Your task to perform on an android device: turn off improve location accuracy Image 0: 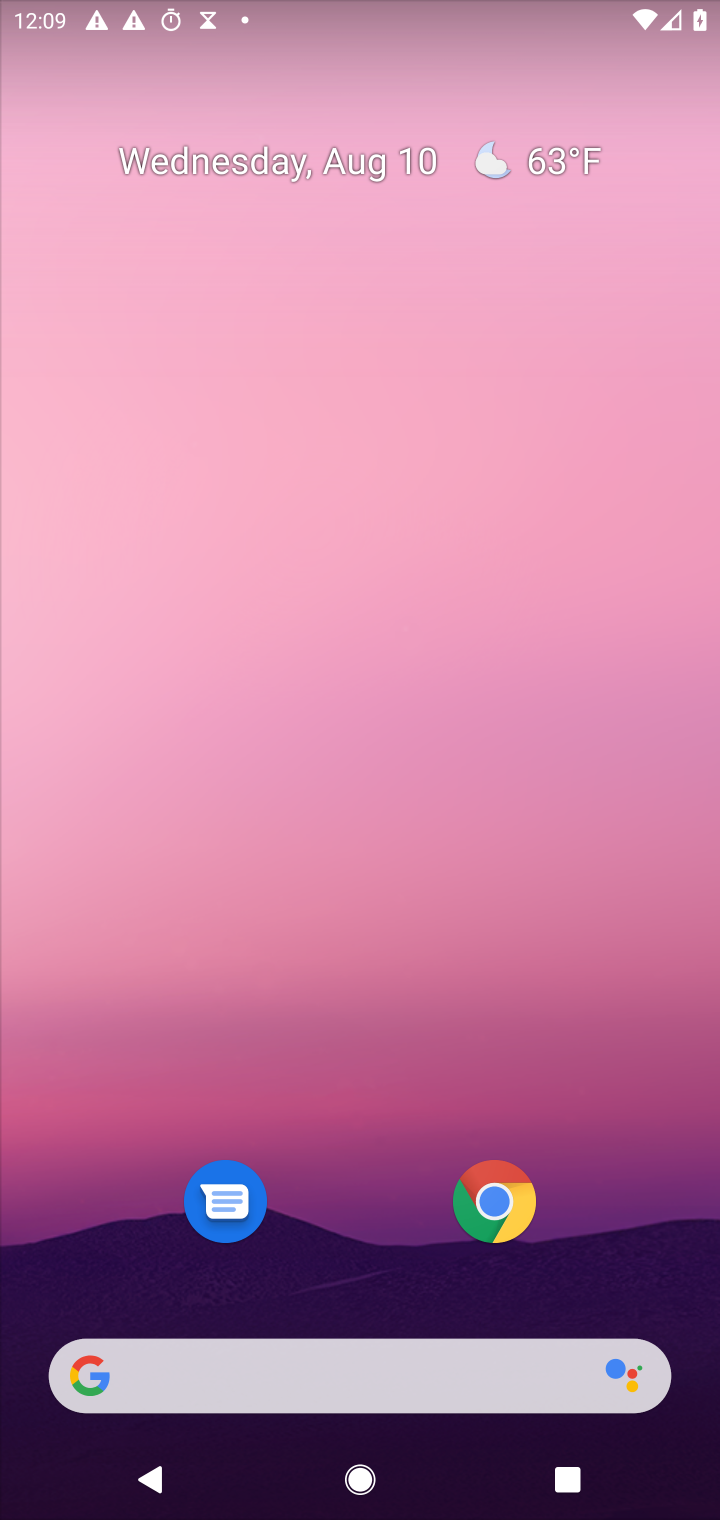
Step 0: press home button
Your task to perform on an android device: turn off improve location accuracy Image 1: 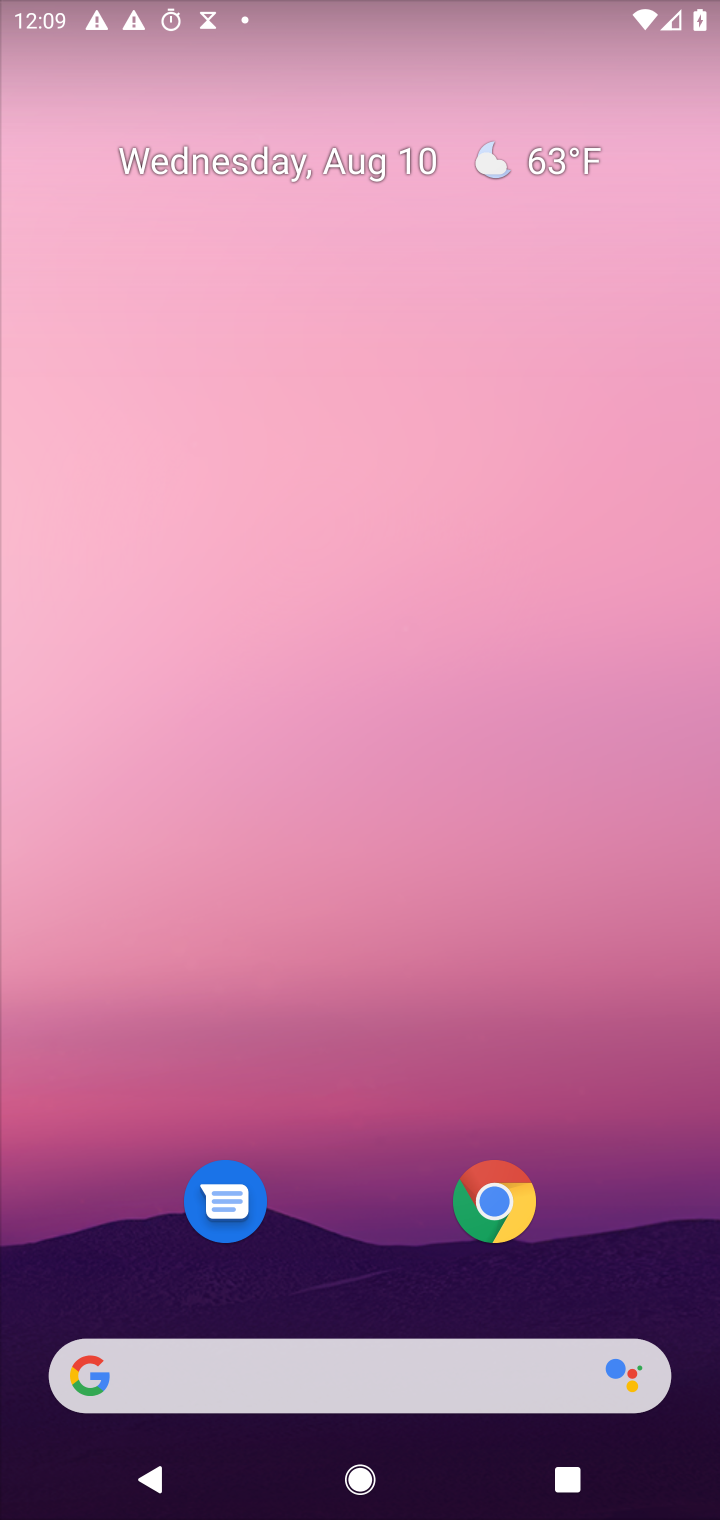
Step 1: click (382, 138)
Your task to perform on an android device: turn off improve location accuracy Image 2: 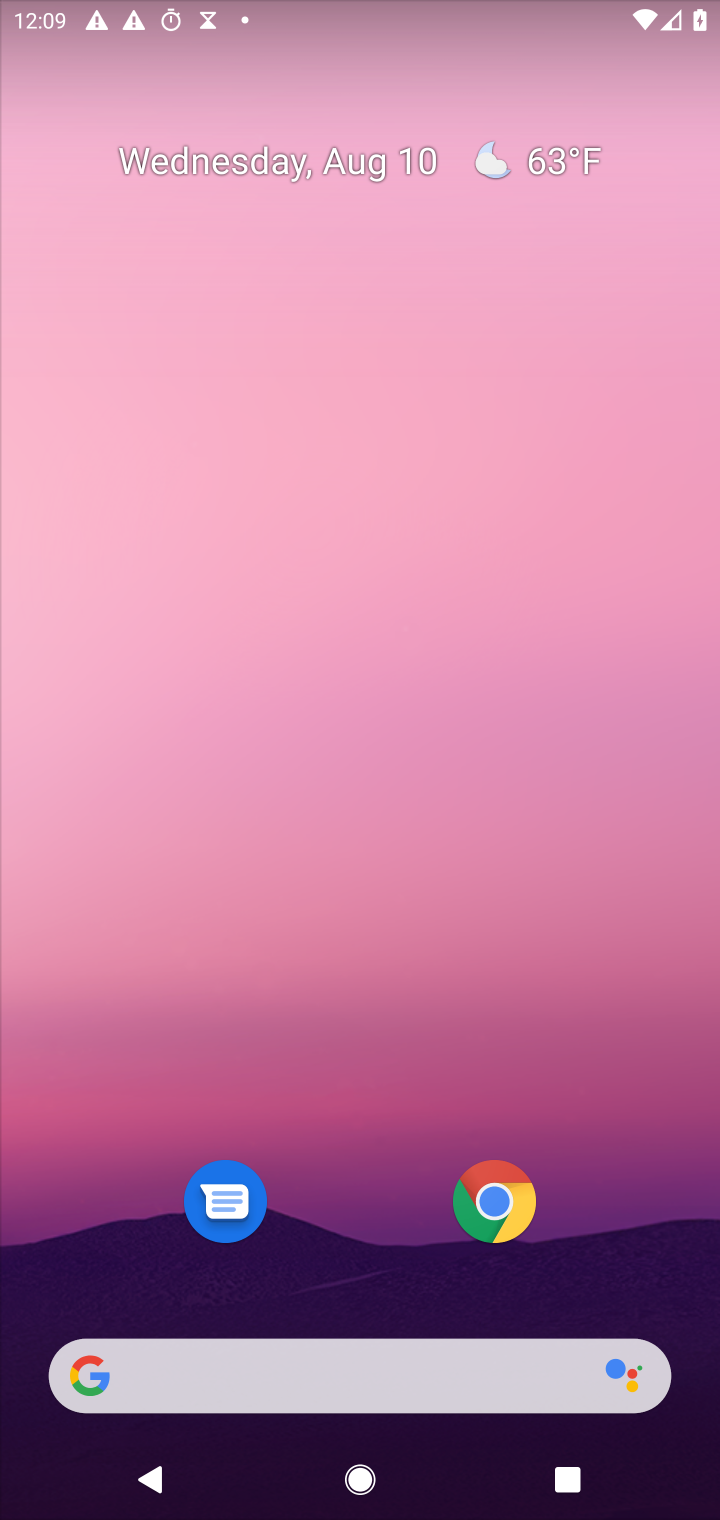
Step 2: drag from (253, 789) to (665, 12)
Your task to perform on an android device: turn off improve location accuracy Image 3: 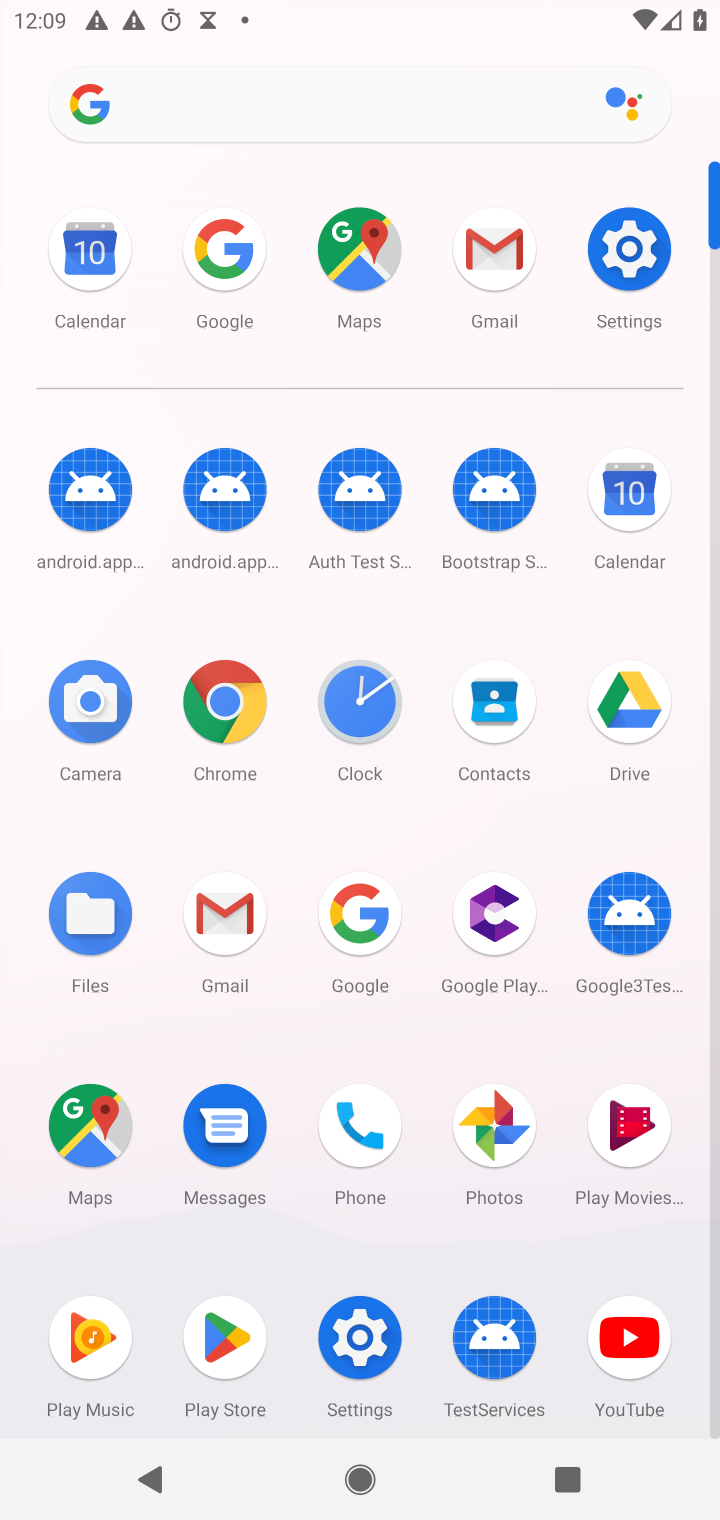
Step 3: click (631, 264)
Your task to perform on an android device: turn off improve location accuracy Image 4: 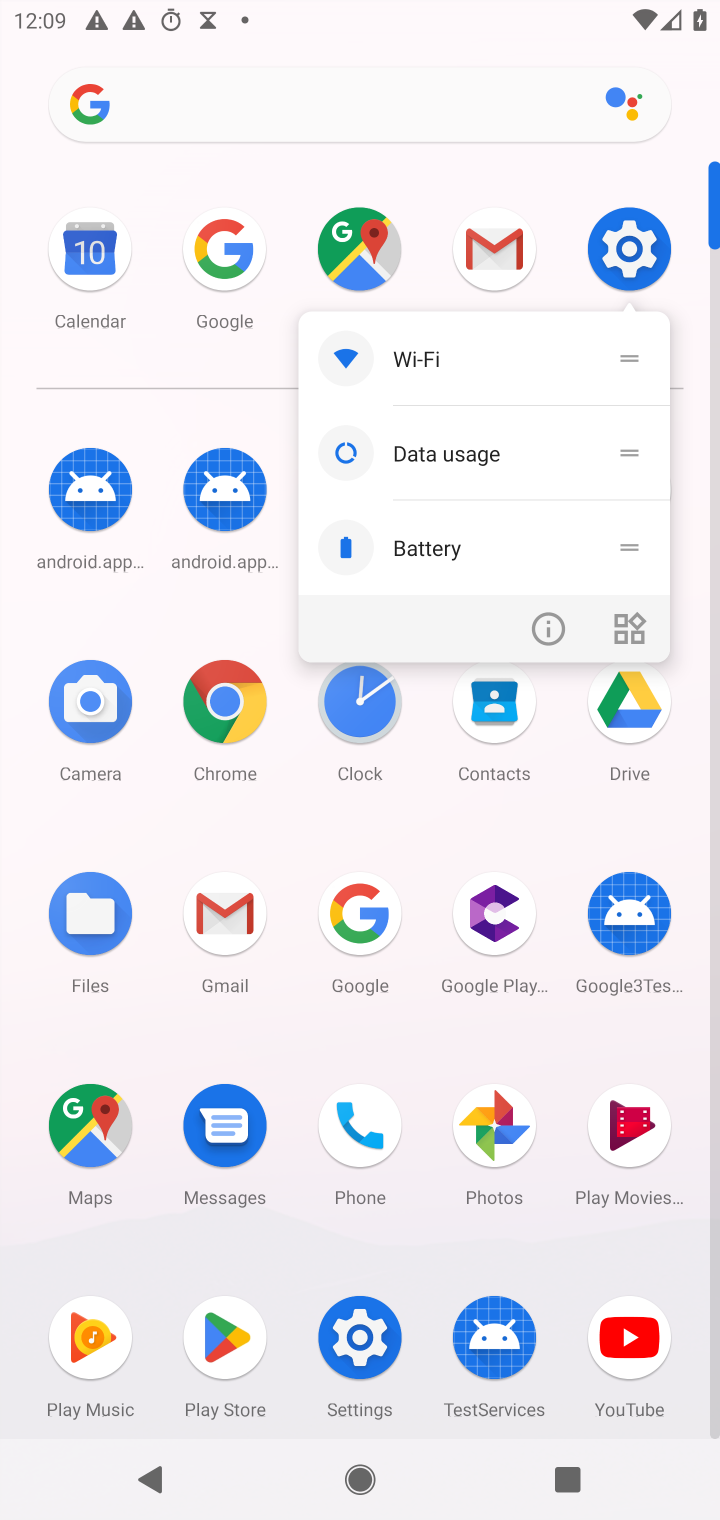
Step 4: click (631, 264)
Your task to perform on an android device: turn off improve location accuracy Image 5: 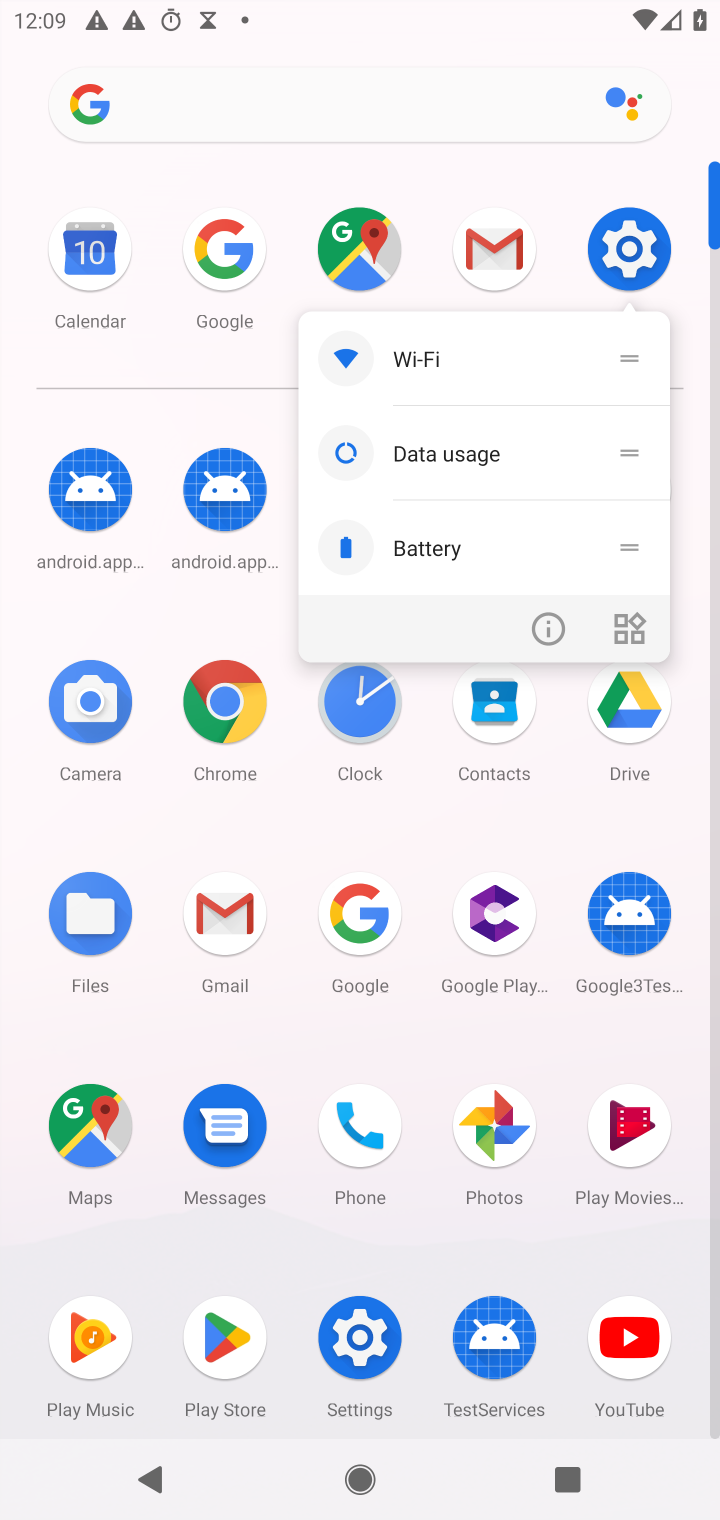
Step 5: click (636, 242)
Your task to perform on an android device: turn off improve location accuracy Image 6: 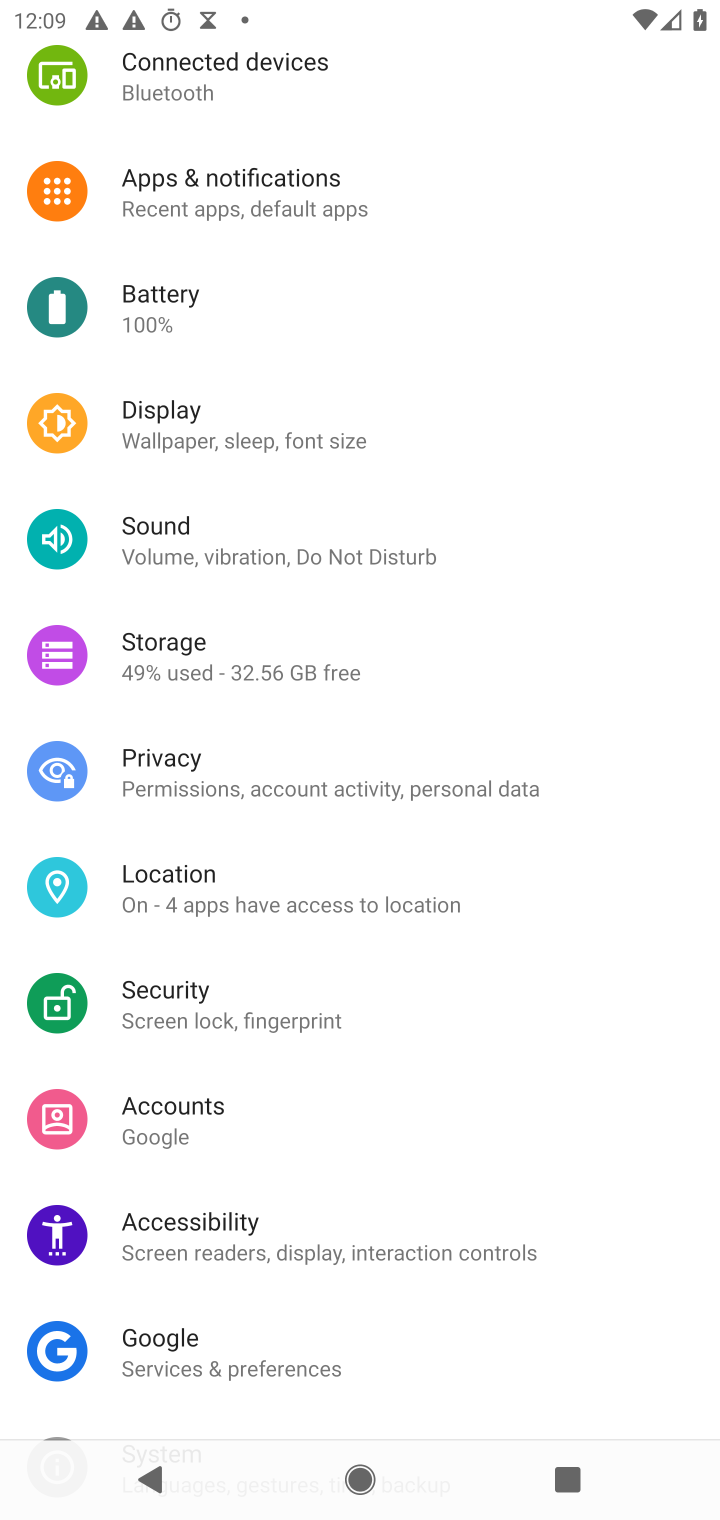
Step 6: click (366, 911)
Your task to perform on an android device: turn off improve location accuracy Image 7: 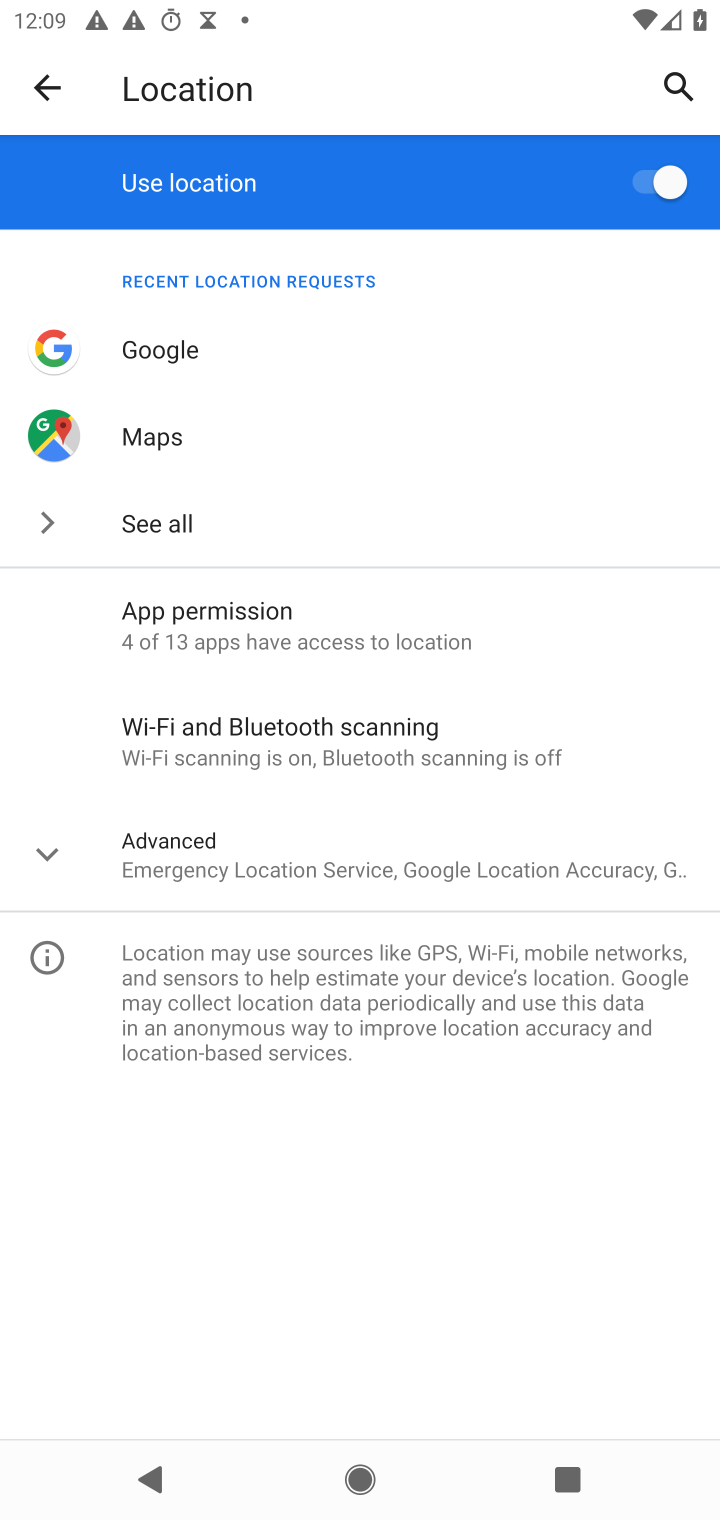
Step 7: click (31, 849)
Your task to perform on an android device: turn off improve location accuracy Image 8: 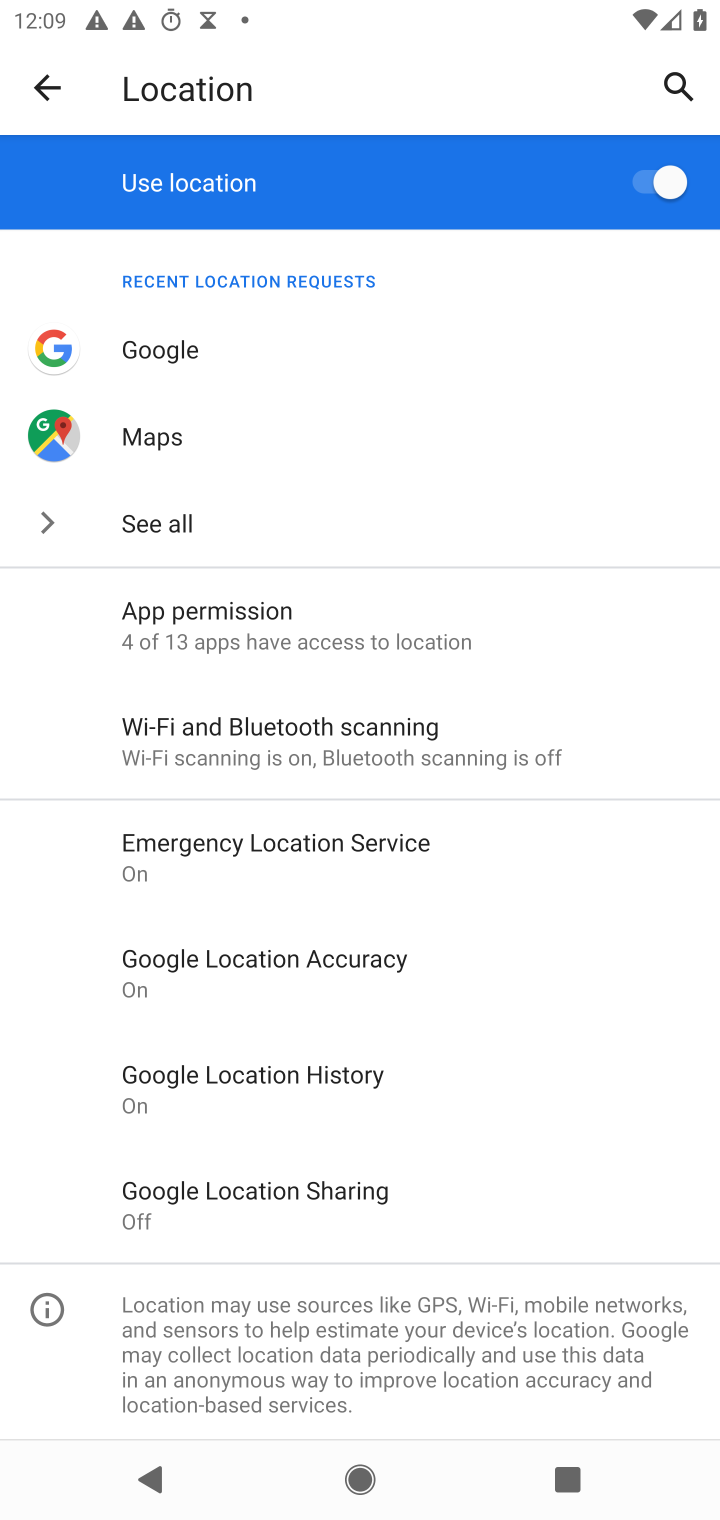
Step 8: click (265, 964)
Your task to perform on an android device: turn off improve location accuracy Image 9: 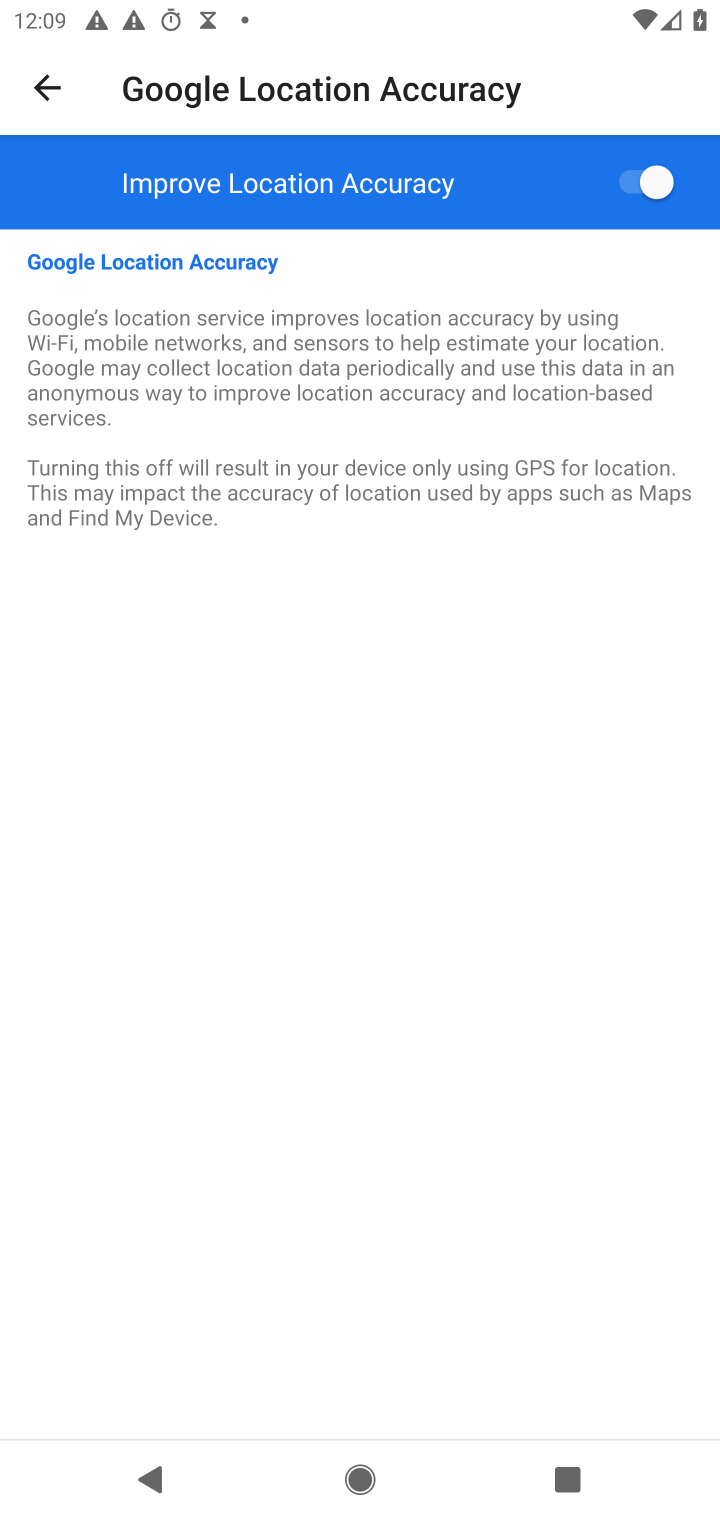
Step 9: click (658, 181)
Your task to perform on an android device: turn off improve location accuracy Image 10: 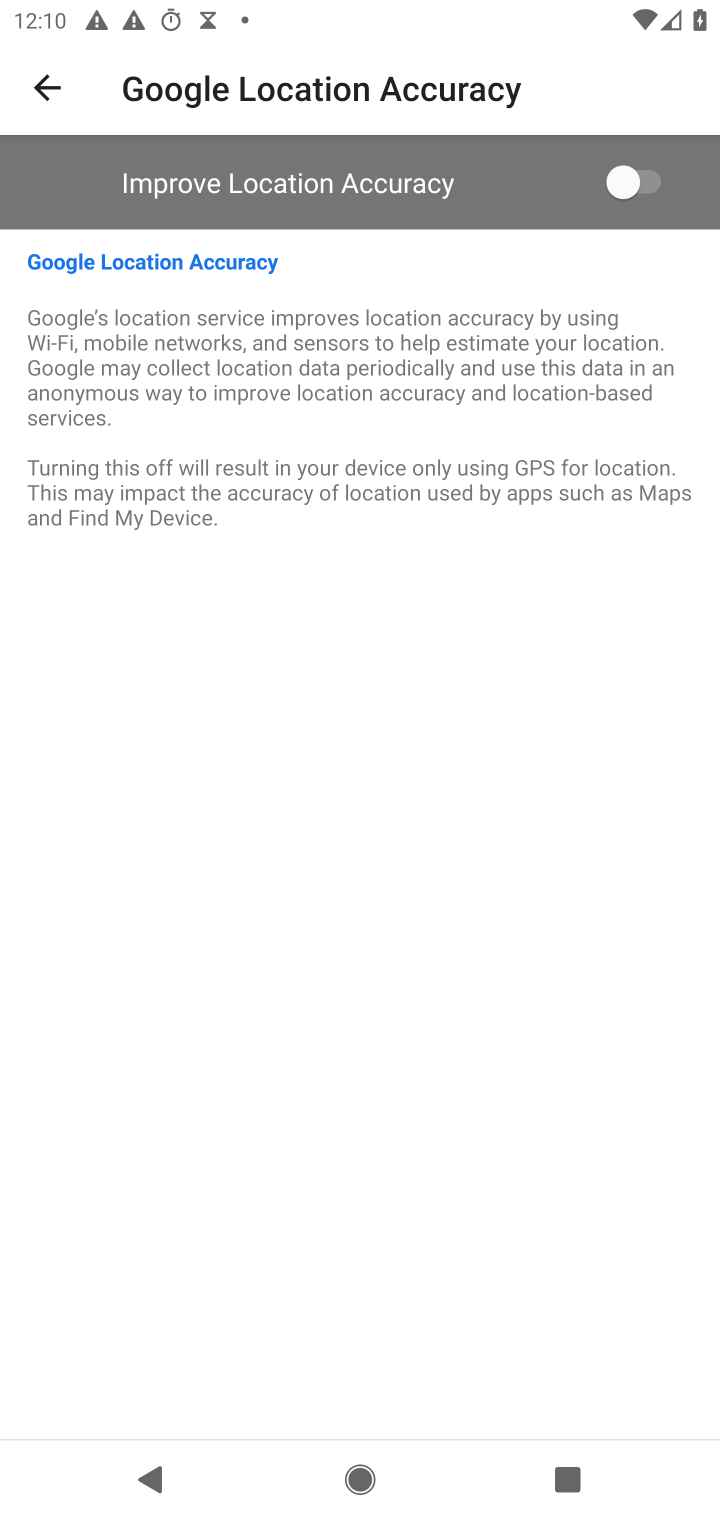
Step 10: task complete